Your task to perform on an android device: open a bookmark in the chrome app Image 0: 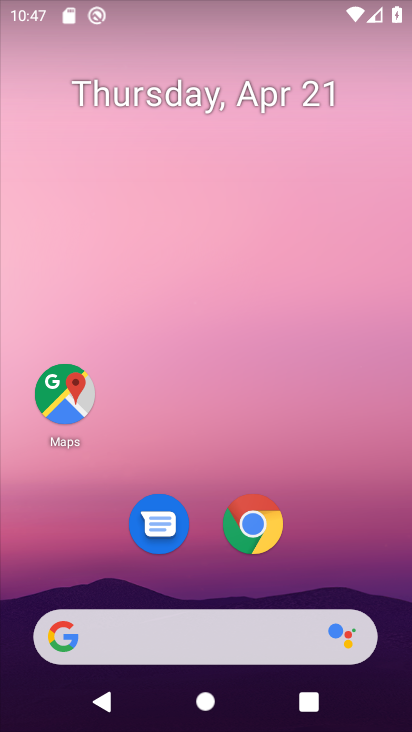
Step 0: click (264, 512)
Your task to perform on an android device: open a bookmark in the chrome app Image 1: 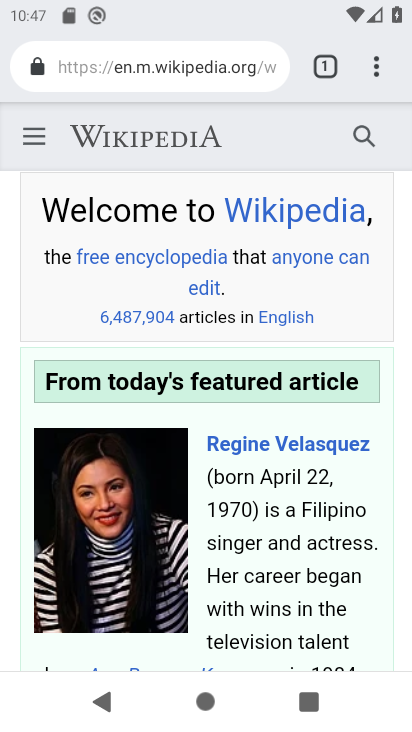
Step 1: drag from (378, 60) to (168, 306)
Your task to perform on an android device: open a bookmark in the chrome app Image 2: 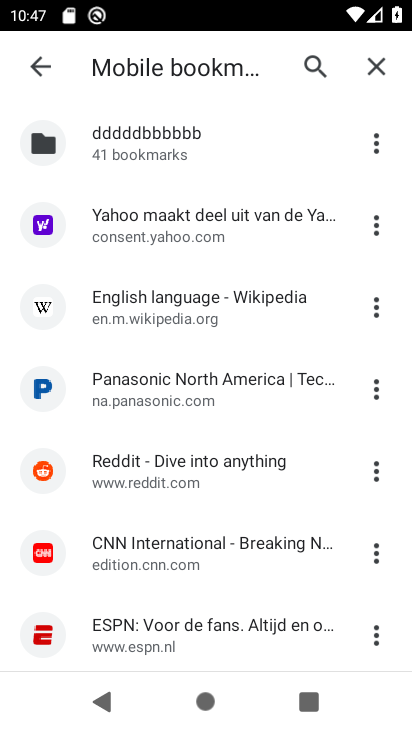
Step 2: click (217, 457)
Your task to perform on an android device: open a bookmark in the chrome app Image 3: 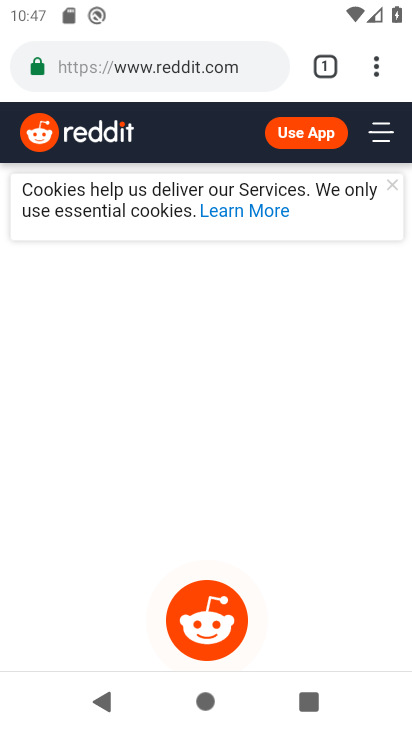
Step 3: task complete